Your task to perform on an android device: Toggle the flashlight Image 0: 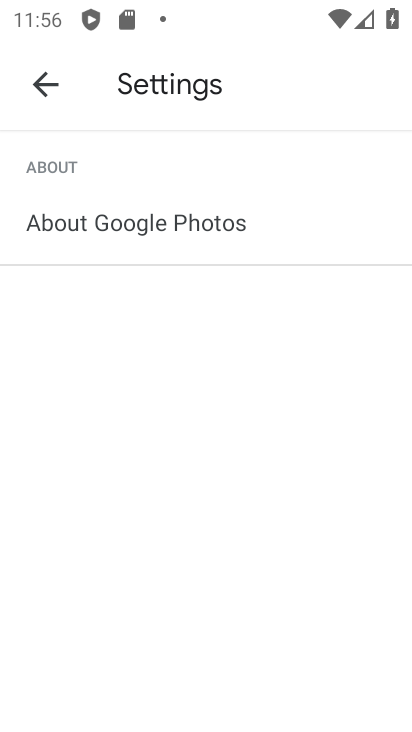
Step 0: press home button
Your task to perform on an android device: Toggle the flashlight Image 1: 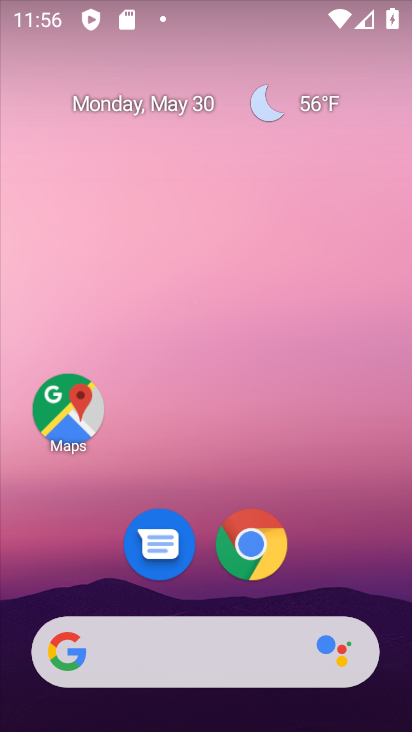
Step 1: drag from (294, 497) to (227, 142)
Your task to perform on an android device: Toggle the flashlight Image 2: 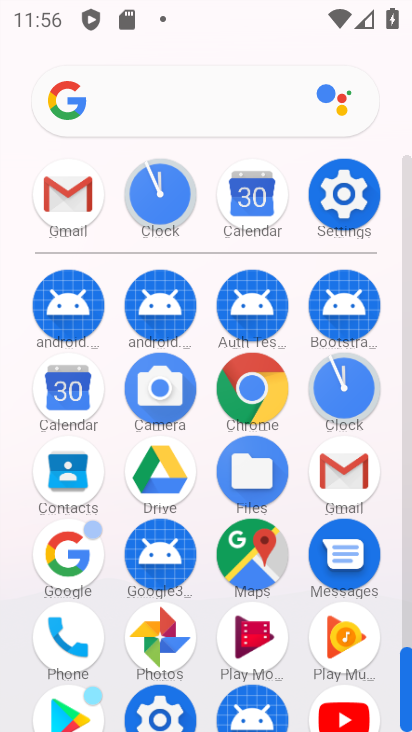
Step 2: click (334, 187)
Your task to perform on an android device: Toggle the flashlight Image 3: 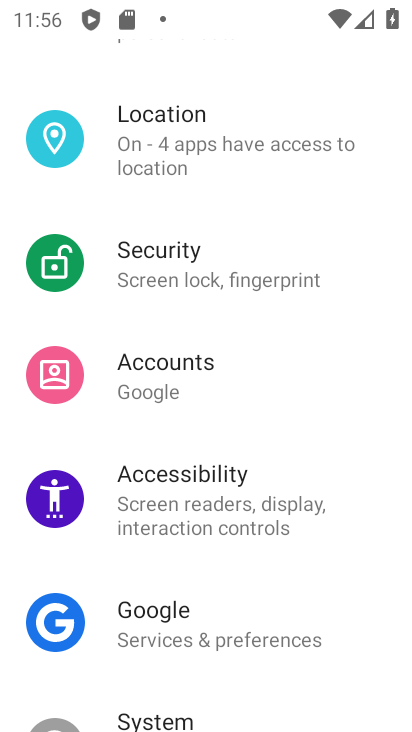
Step 3: drag from (219, 219) to (226, 689)
Your task to perform on an android device: Toggle the flashlight Image 4: 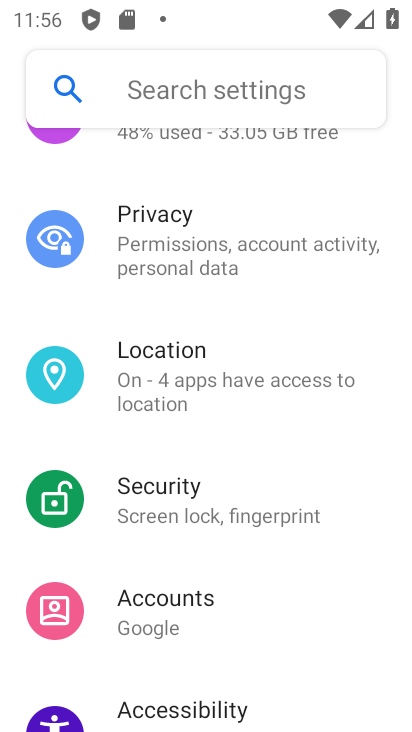
Step 4: drag from (227, 324) to (307, 725)
Your task to perform on an android device: Toggle the flashlight Image 5: 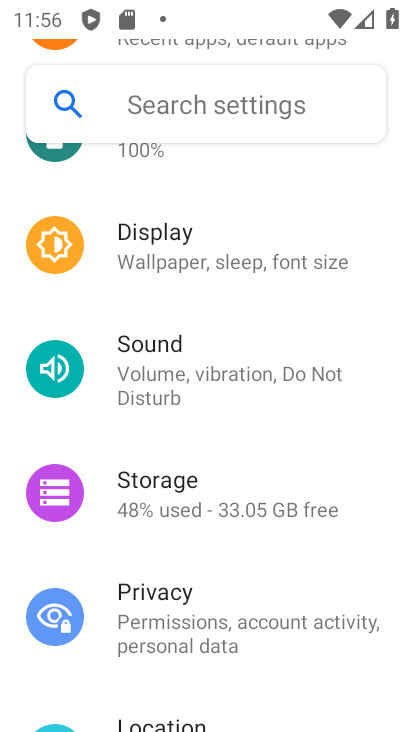
Step 5: click (152, 224)
Your task to perform on an android device: Toggle the flashlight Image 6: 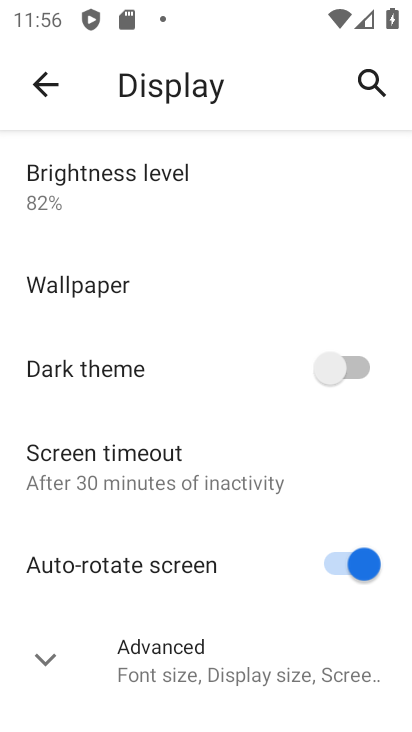
Step 6: task complete